Your task to perform on an android device: turn off notifications settings in the gmail app Image 0: 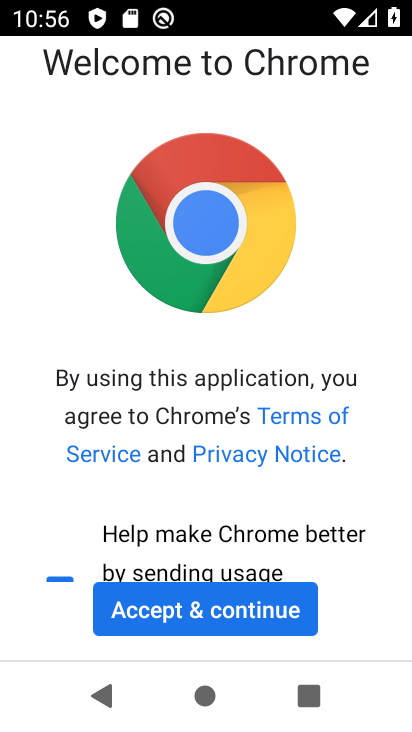
Step 0: press home button
Your task to perform on an android device: turn off notifications settings in the gmail app Image 1: 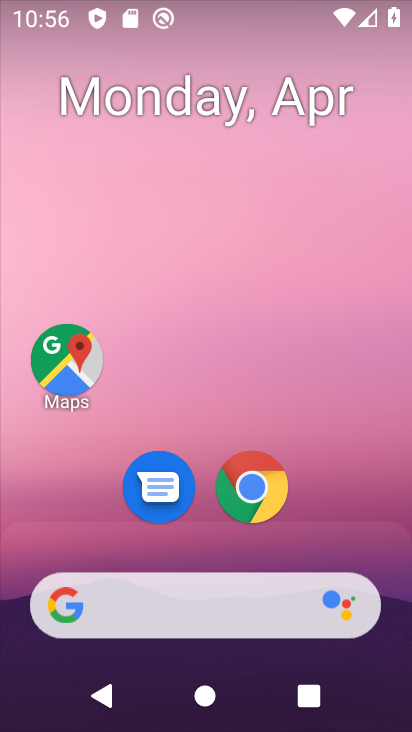
Step 1: drag from (352, 508) to (334, 83)
Your task to perform on an android device: turn off notifications settings in the gmail app Image 2: 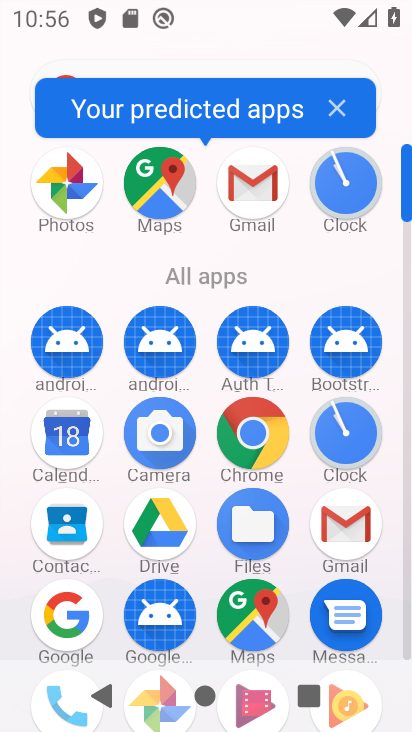
Step 2: click (255, 205)
Your task to perform on an android device: turn off notifications settings in the gmail app Image 3: 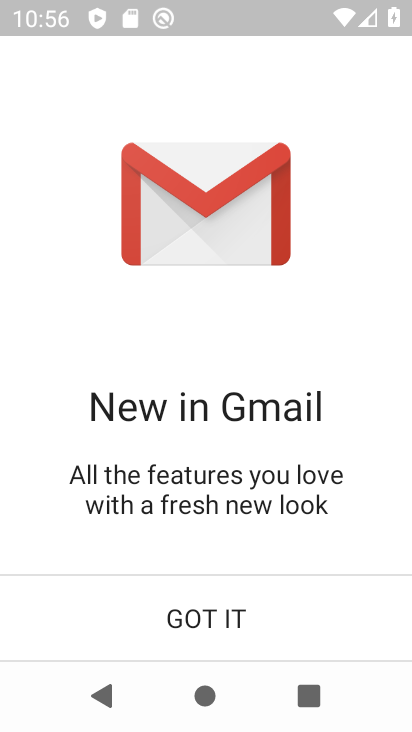
Step 3: click (191, 617)
Your task to perform on an android device: turn off notifications settings in the gmail app Image 4: 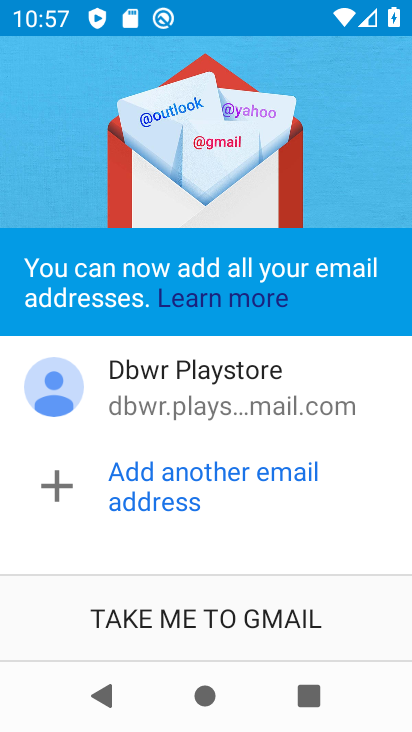
Step 4: click (191, 617)
Your task to perform on an android device: turn off notifications settings in the gmail app Image 5: 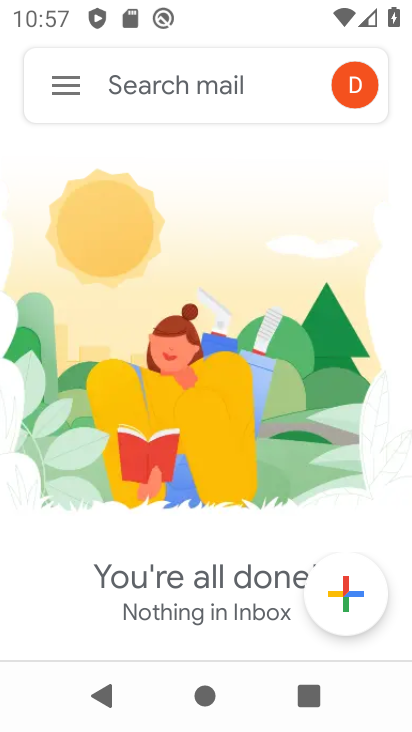
Step 5: click (64, 97)
Your task to perform on an android device: turn off notifications settings in the gmail app Image 6: 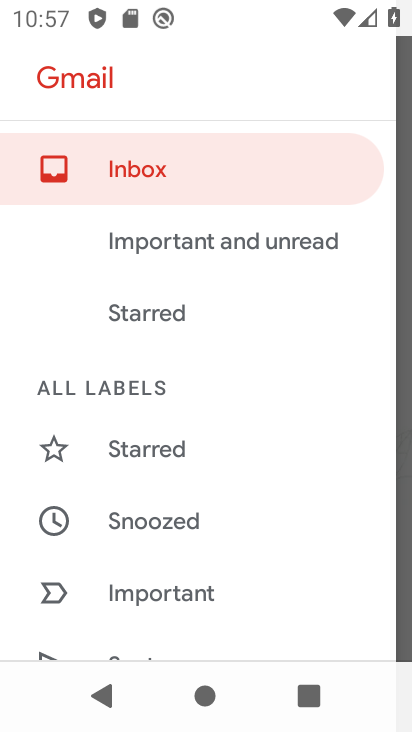
Step 6: drag from (202, 574) to (194, 14)
Your task to perform on an android device: turn off notifications settings in the gmail app Image 7: 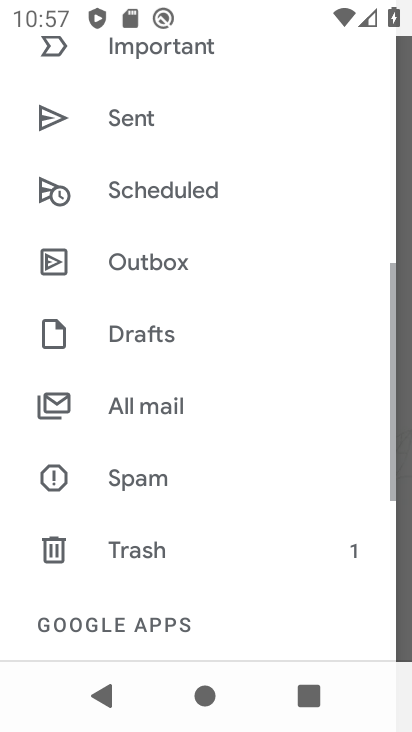
Step 7: drag from (233, 513) to (221, 72)
Your task to perform on an android device: turn off notifications settings in the gmail app Image 8: 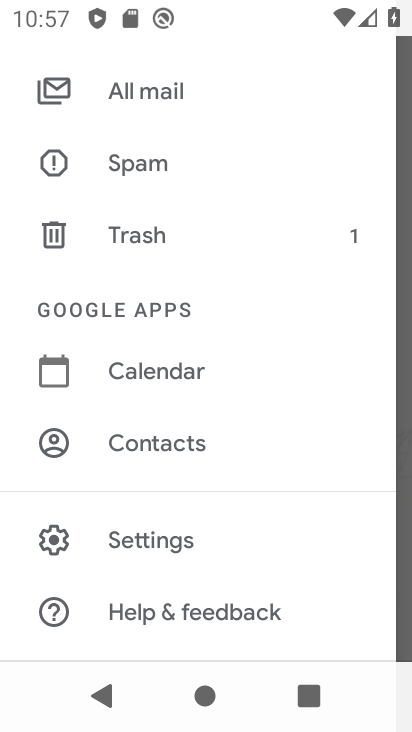
Step 8: click (248, 530)
Your task to perform on an android device: turn off notifications settings in the gmail app Image 9: 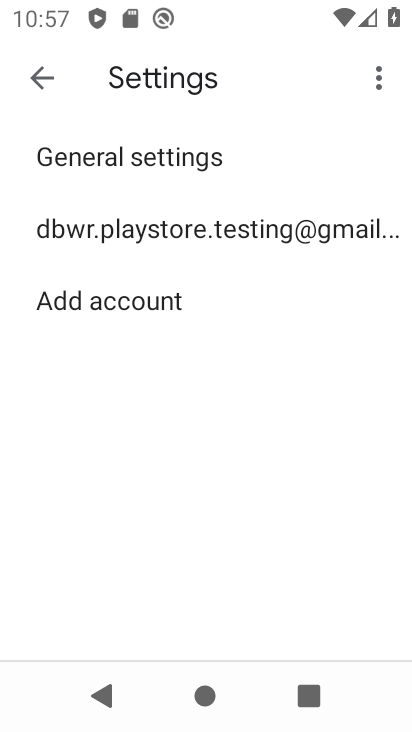
Step 9: click (341, 218)
Your task to perform on an android device: turn off notifications settings in the gmail app Image 10: 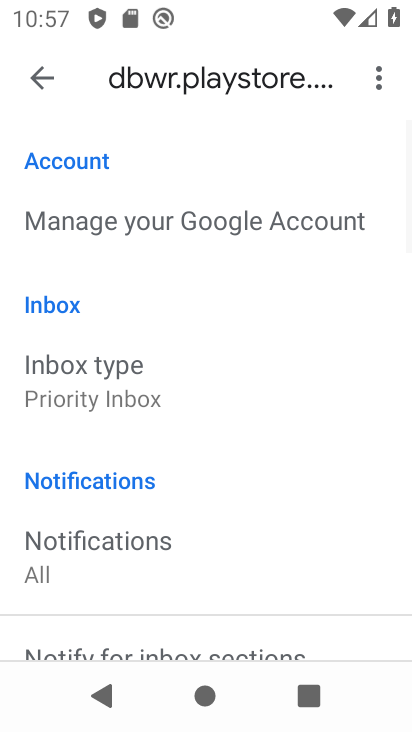
Step 10: drag from (284, 590) to (273, 300)
Your task to perform on an android device: turn off notifications settings in the gmail app Image 11: 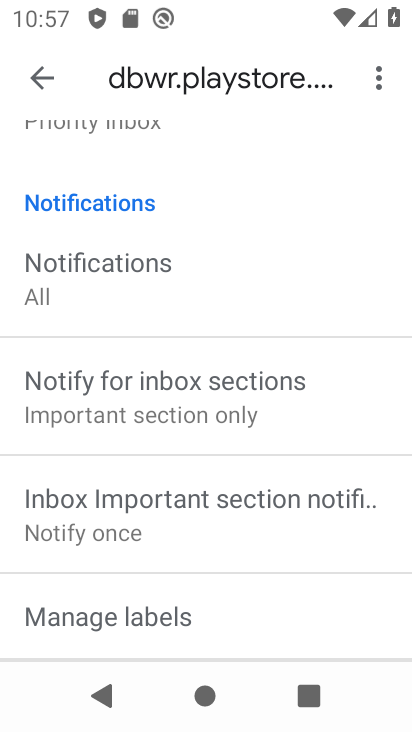
Step 11: drag from (272, 601) to (265, 322)
Your task to perform on an android device: turn off notifications settings in the gmail app Image 12: 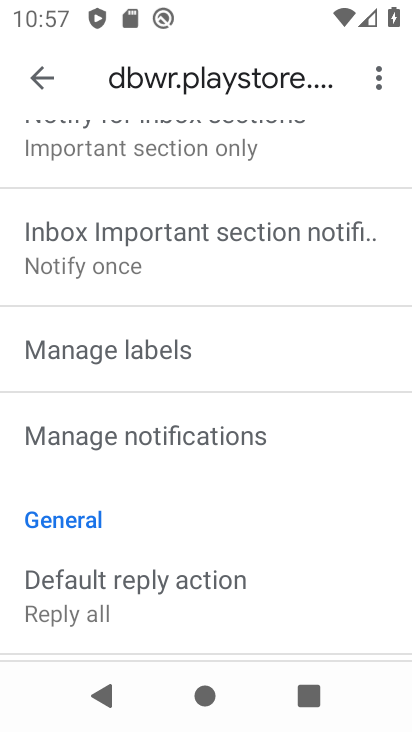
Step 12: click (244, 450)
Your task to perform on an android device: turn off notifications settings in the gmail app Image 13: 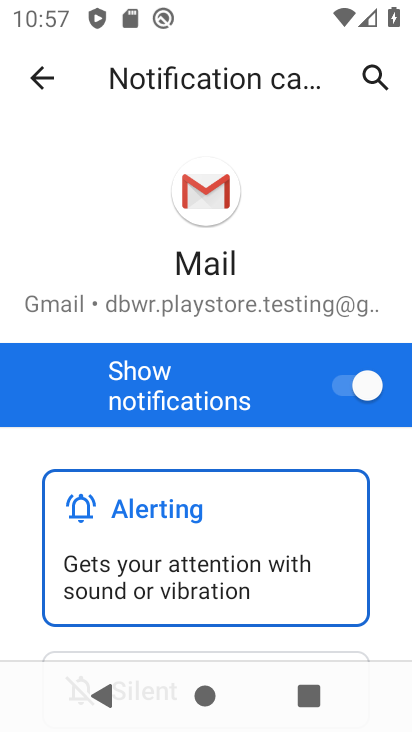
Step 13: task complete